Your task to perform on an android device: turn pop-ups off in chrome Image 0: 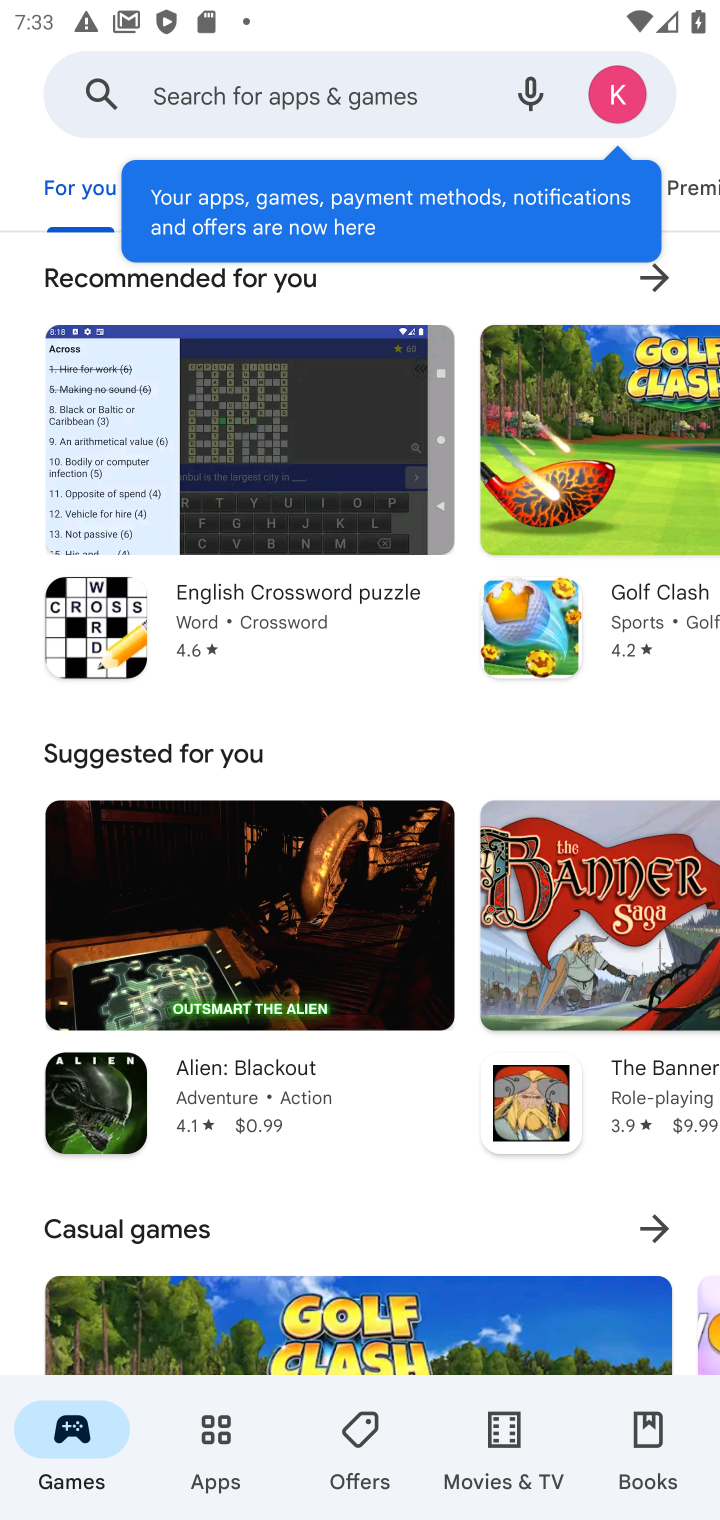
Step 0: press home button
Your task to perform on an android device: turn pop-ups off in chrome Image 1: 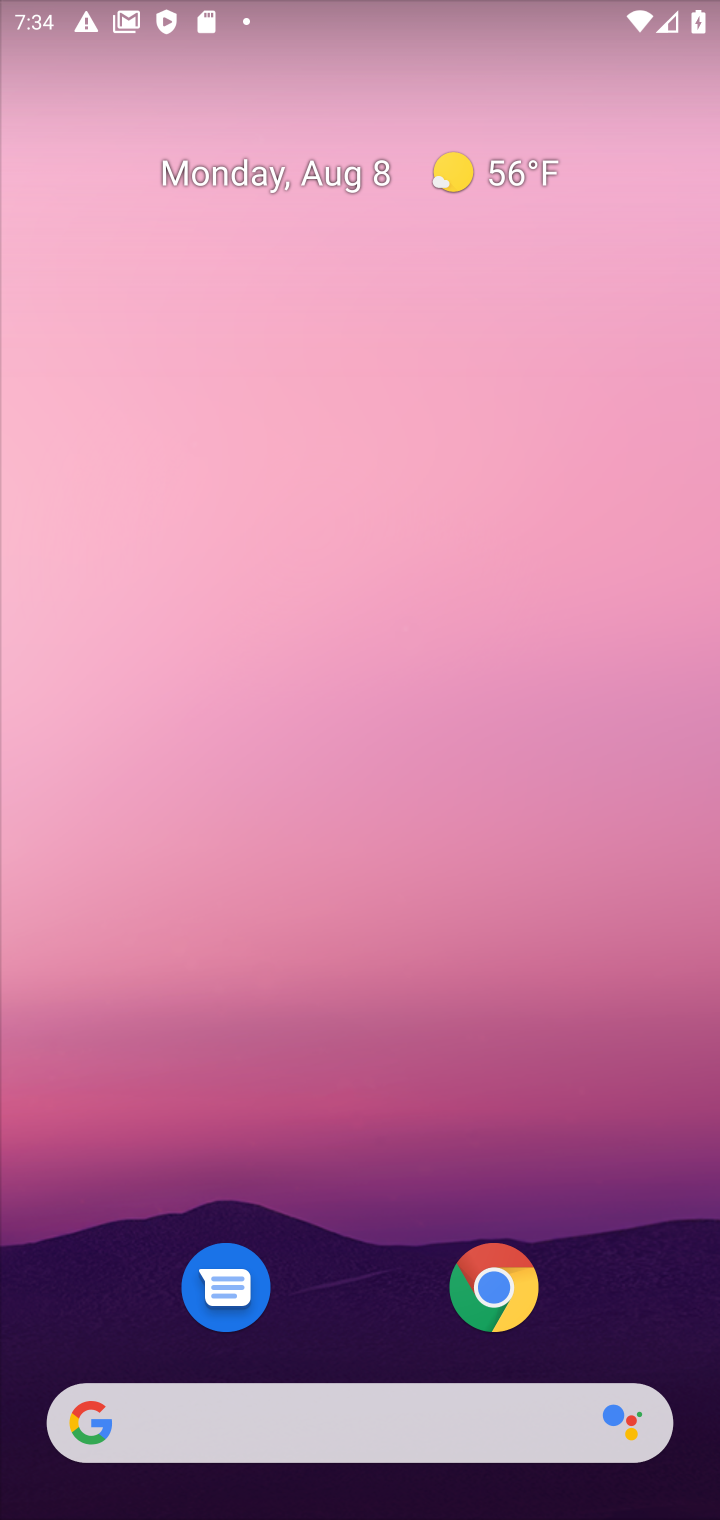
Step 1: click (492, 1302)
Your task to perform on an android device: turn pop-ups off in chrome Image 2: 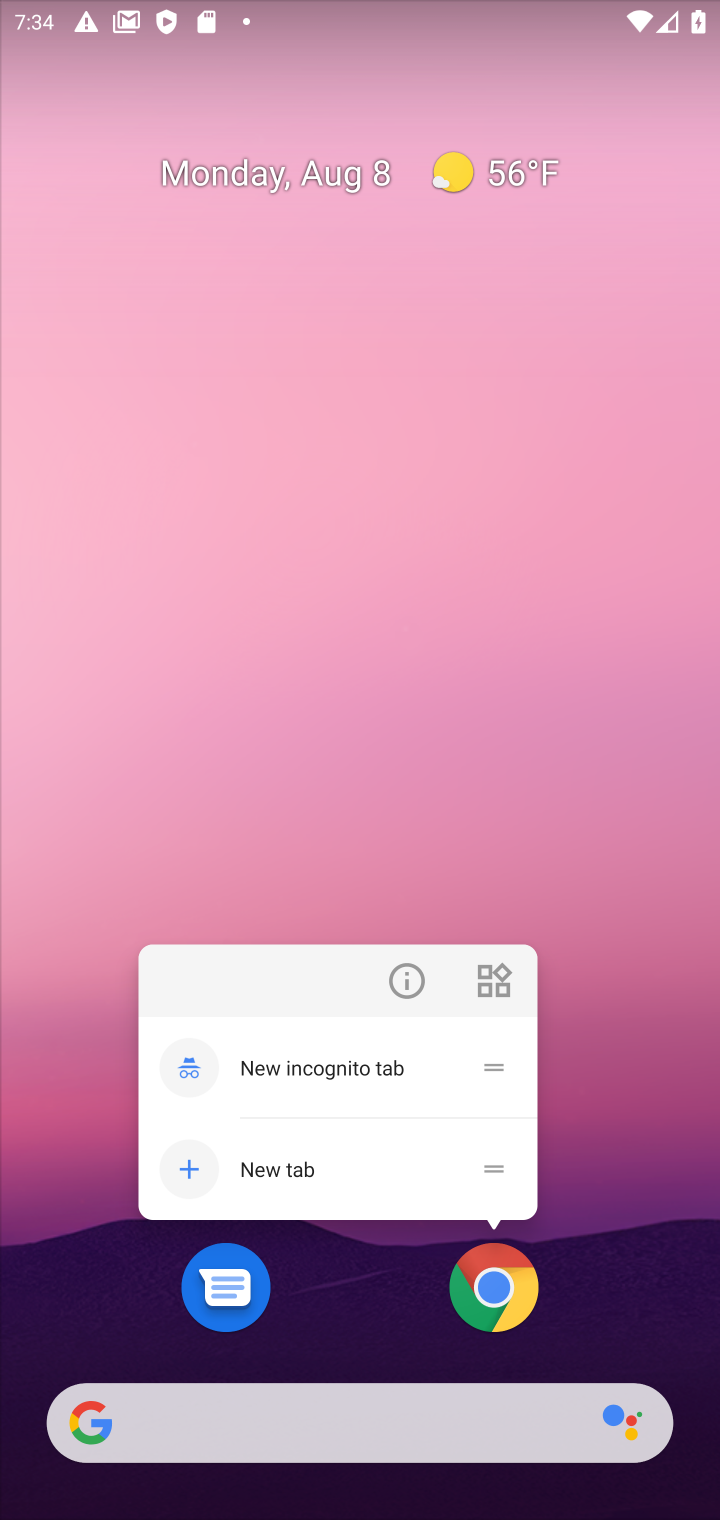
Step 2: click (492, 1302)
Your task to perform on an android device: turn pop-ups off in chrome Image 3: 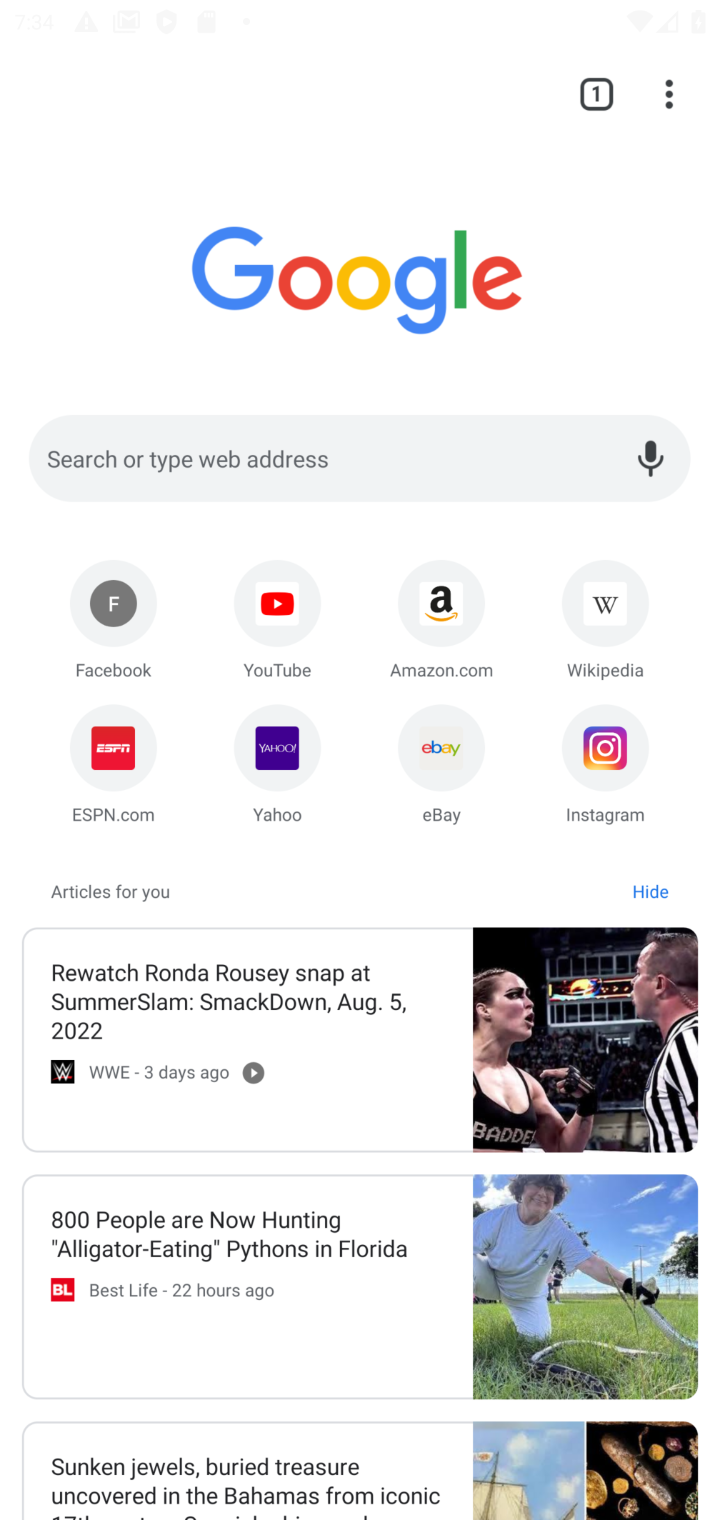
Step 3: task complete